Your task to perform on an android device: add a contact Image 0: 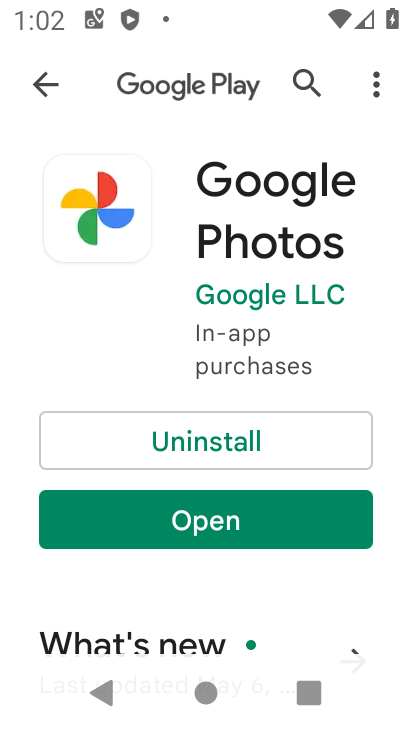
Step 0: drag from (370, 524) to (373, 257)
Your task to perform on an android device: add a contact Image 1: 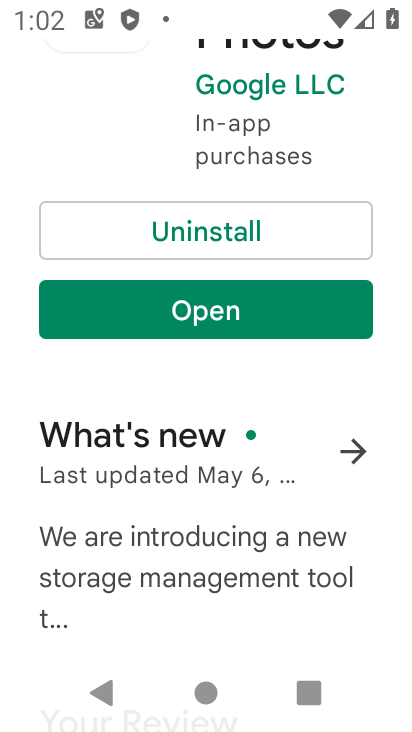
Step 1: press home button
Your task to perform on an android device: add a contact Image 2: 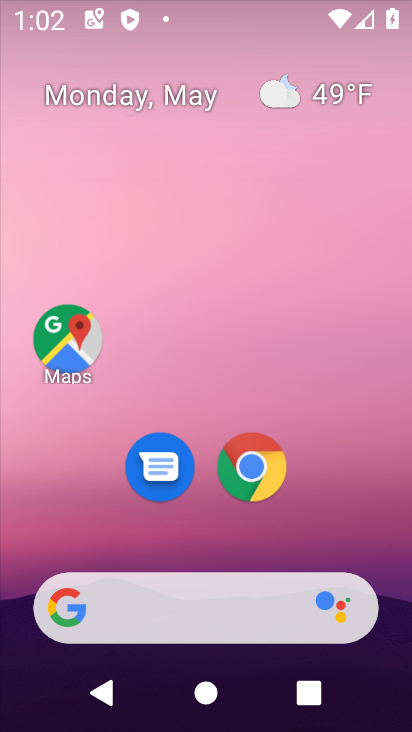
Step 2: drag from (359, 519) to (344, 165)
Your task to perform on an android device: add a contact Image 3: 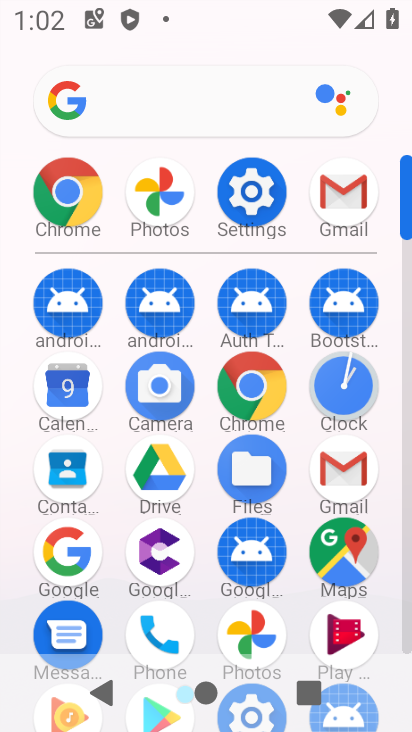
Step 3: drag from (195, 610) to (213, 333)
Your task to perform on an android device: add a contact Image 4: 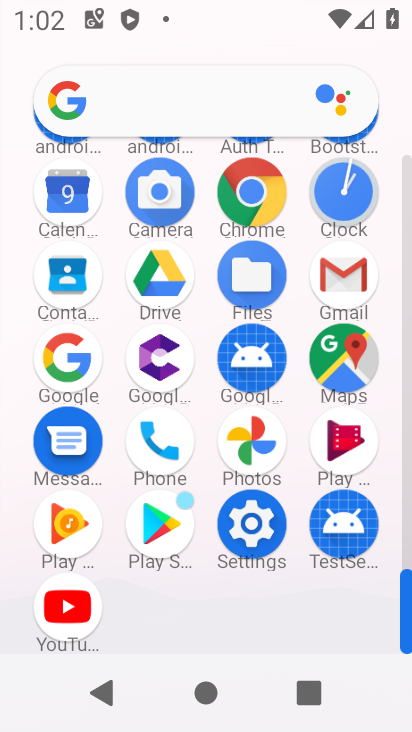
Step 4: drag from (185, 263) to (185, 548)
Your task to perform on an android device: add a contact Image 5: 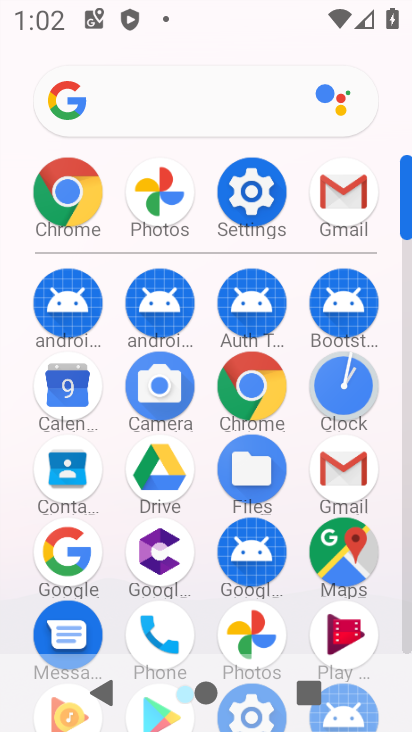
Step 5: drag from (200, 617) to (199, 396)
Your task to perform on an android device: add a contact Image 6: 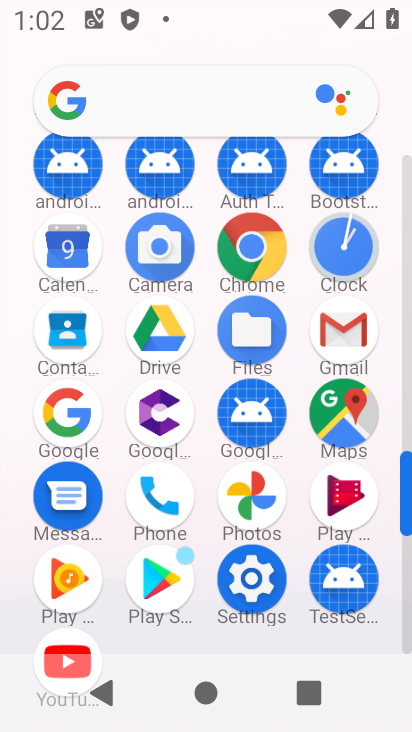
Step 6: click (57, 337)
Your task to perform on an android device: add a contact Image 7: 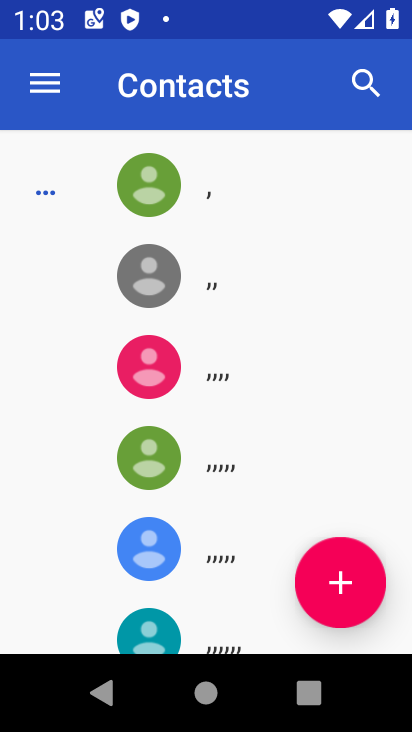
Step 7: drag from (225, 589) to (255, 212)
Your task to perform on an android device: add a contact Image 8: 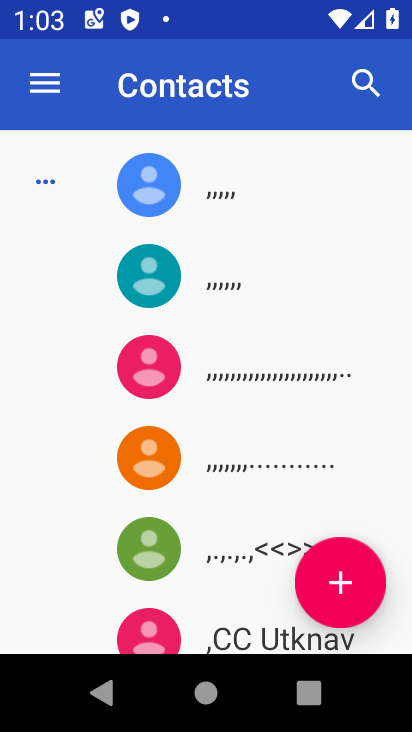
Step 8: click (351, 595)
Your task to perform on an android device: add a contact Image 9: 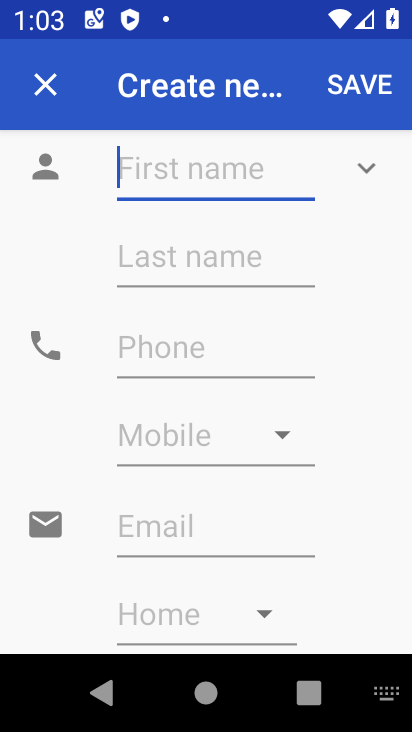
Step 9: click (155, 172)
Your task to perform on an android device: add a contact Image 10: 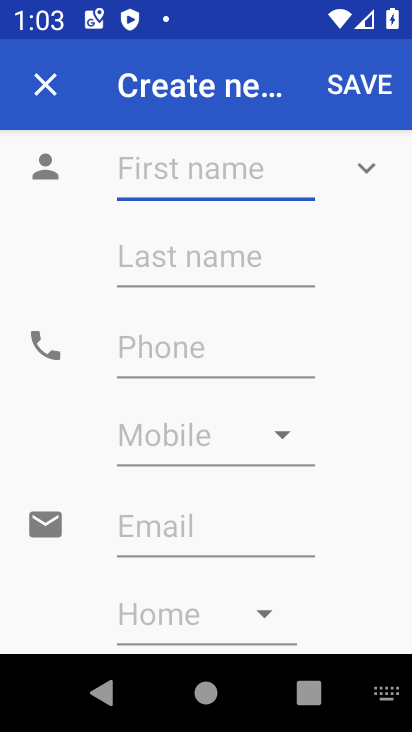
Step 10: type "renu"
Your task to perform on an android device: add a contact Image 11: 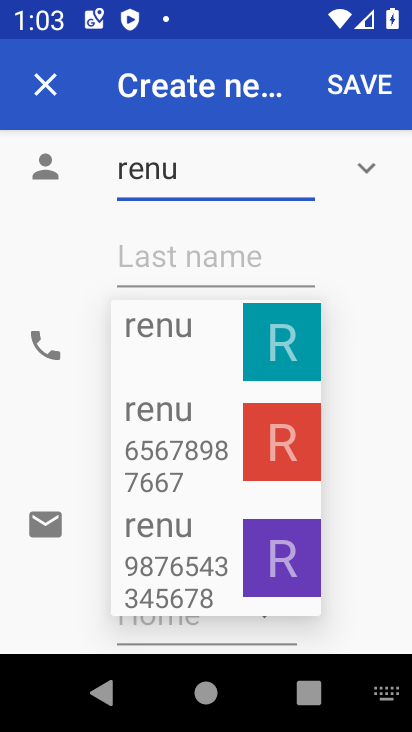
Step 11: click (358, 270)
Your task to perform on an android device: add a contact Image 12: 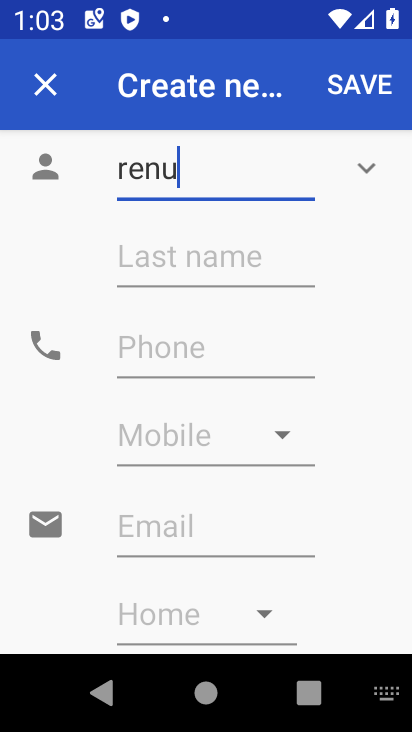
Step 12: click (155, 361)
Your task to perform on an android device: add a contact Image 13: 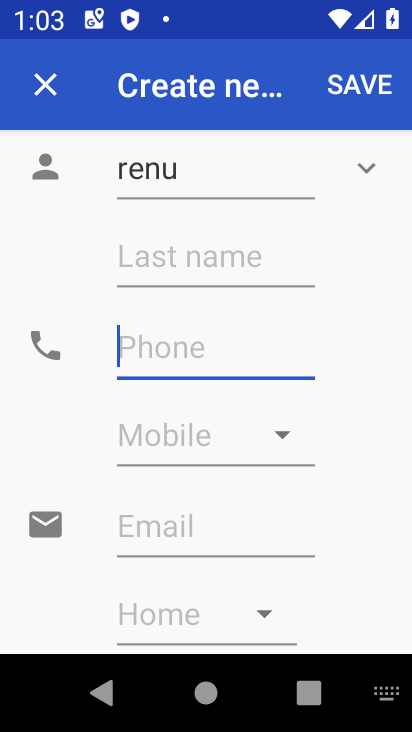
Step 13: type "9489493489"
Your task to perform on an android device: add a contact Image 14: 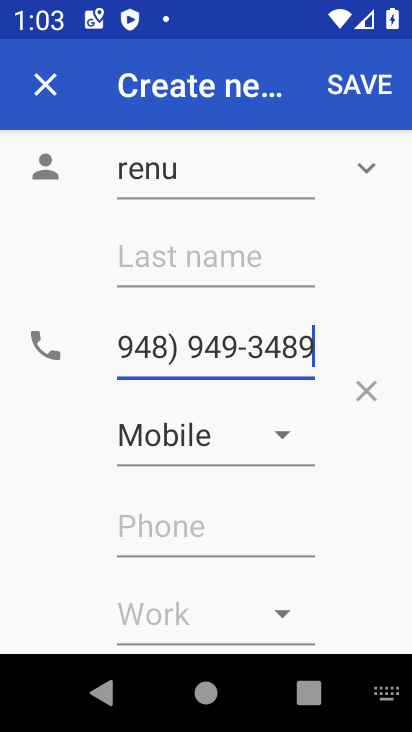
Step 14: click (385, 94)
Your task to perform on an android device: add a contact Image 15: 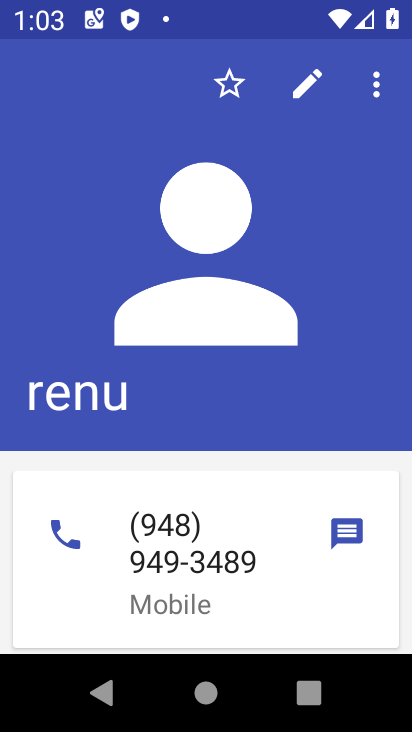
Step 15: task complete